Your task to perform on an android device: snooze an email in the gmail app Image 0: 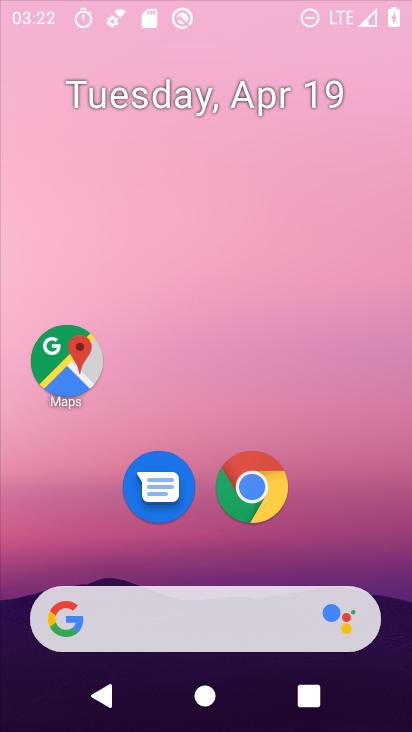
Step 0: click (237, 481)
Your task to perform on an android device: snooze an email in the gmail app Image 1: 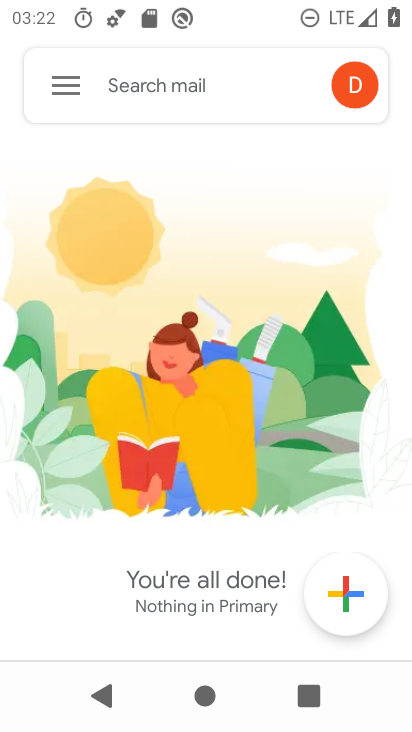
Step 1: press home button
Your task to perform on an android device: snooze an email in the gmail app Image 2: 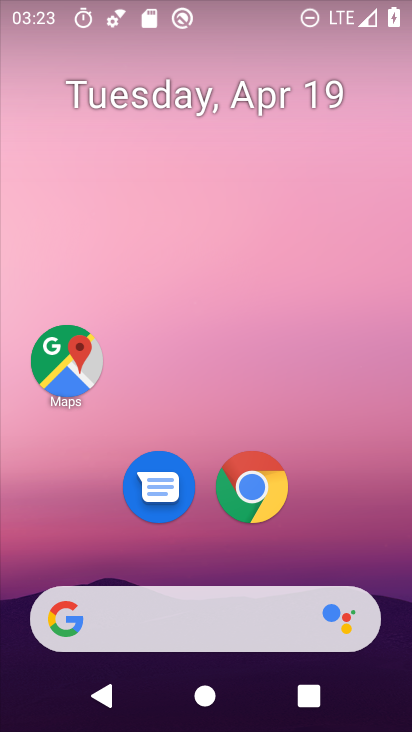
Step 2: drag from (195, 518) to (275, 45)
Your task to perform on an android device: snooze an email in the gmail app Image 3: 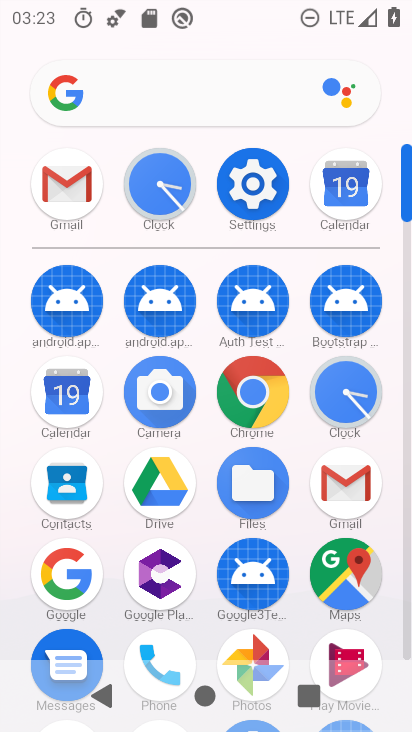
Step 3: click (71, 189)
Your task to perform on an android device: snooze an email in the gmail app Image 4: 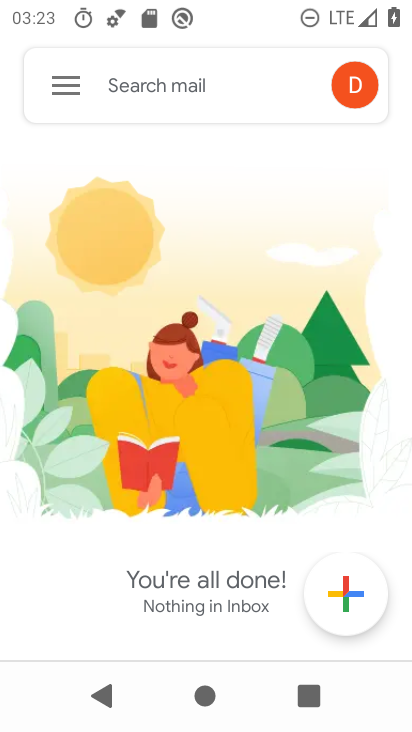
Step 4: click (59, 81)
Your task to perform on an android device: snooze an email in the gmail app Image 5: 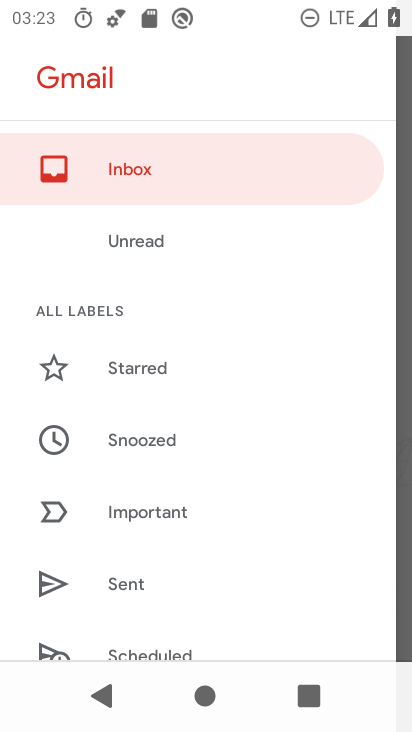
Step 5: click (169, 434)
Your task to perform on an android device: snooze an email in the gmail app Image 6: 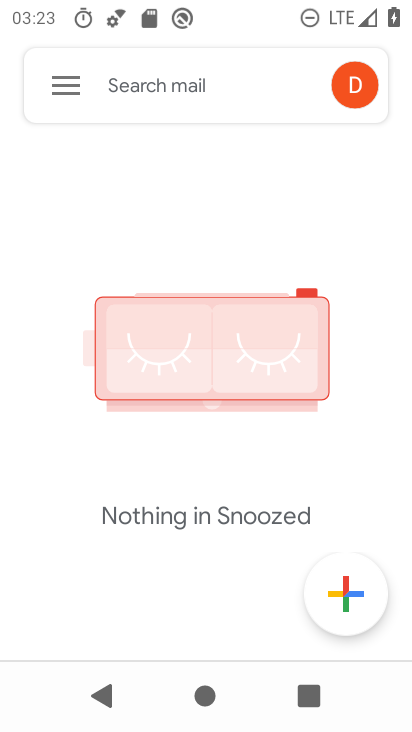
Step 6: task complete